Your task to perform on an android device: Open eBay Image 0: 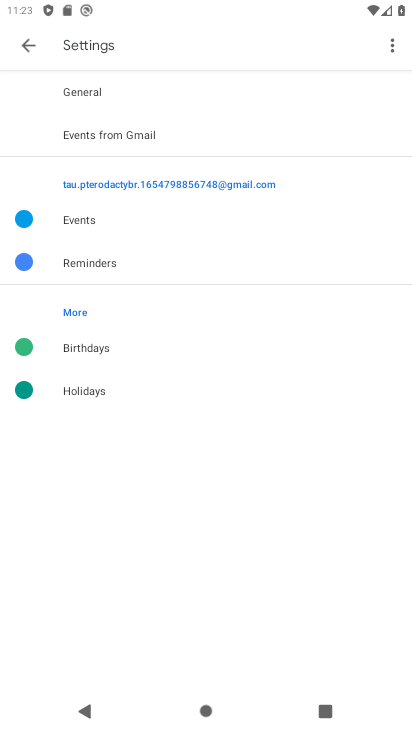
Step 0: press home button
Your task to perform on an android device: Open eBay Image 1: 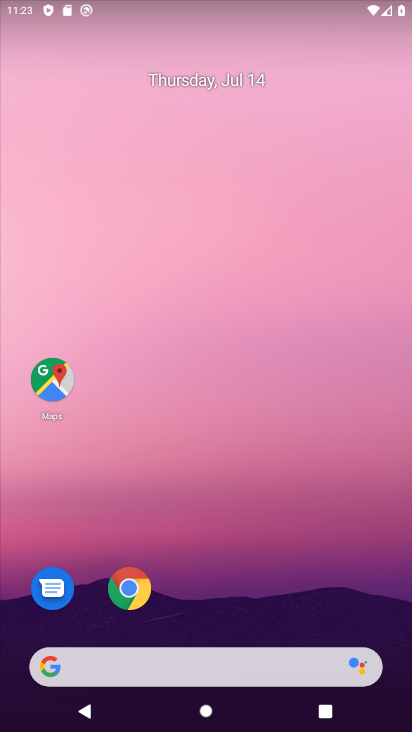
Step 1: click (140, 593)
Your task to perform on an android device: Open eBay Image 2: 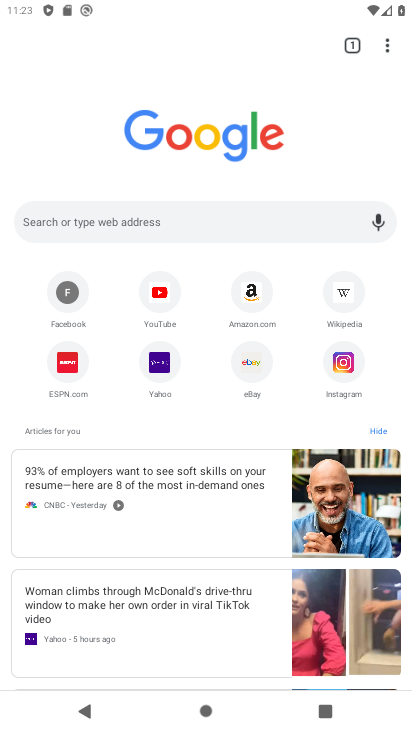
Step 2: click (251, 376)
Your task to perform on an android device: Open eBay Image 3: 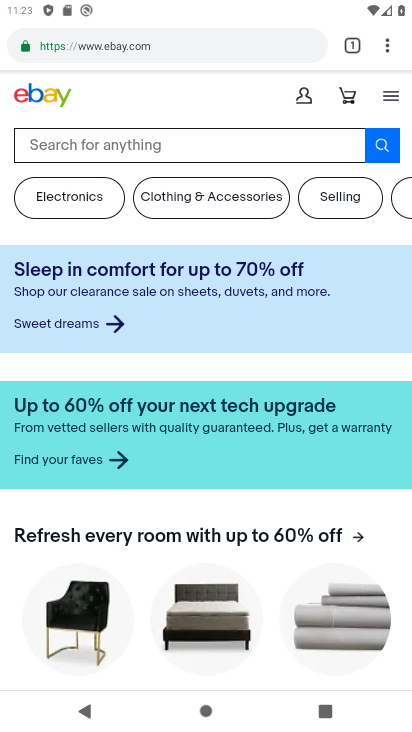
Step 3: task complete